Your task to perform on an android device: delete the emails in spam in the gmail app Image 0: 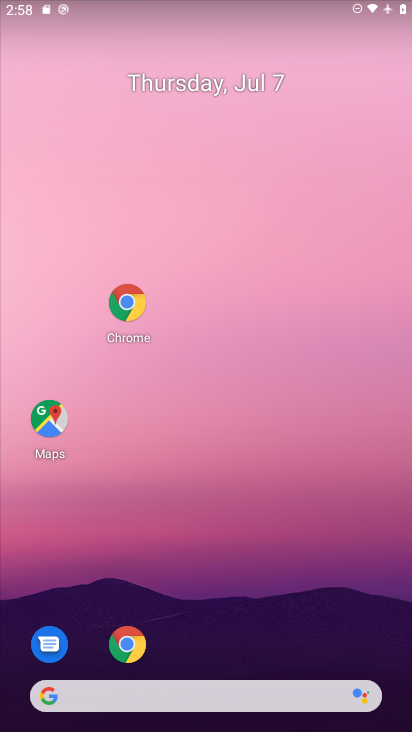
Step 0: click (326, 8)
Your task to perform on an android device: delete the emails in spam in the gmail app Image 1: 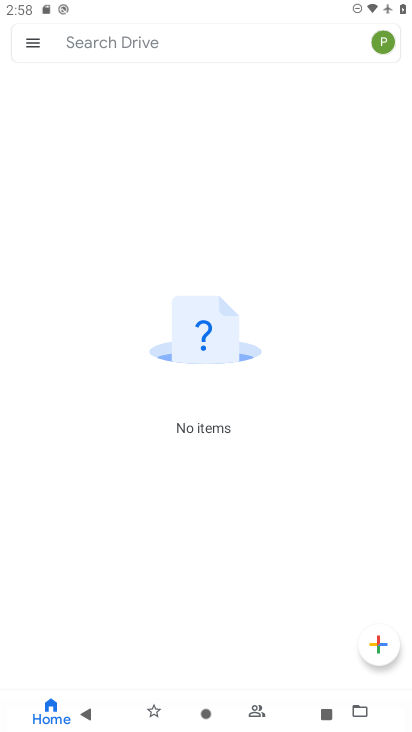
Step 1: click (298, 346)
Your task to perform on an android device: delete the emails in spam in the gmail app Image 2: 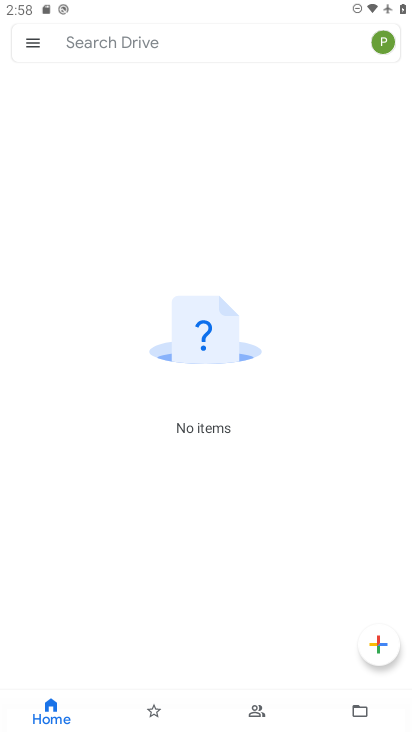
Step 2: press home button
Your task to perform on an android device: delete the emails in spam in the gmail app Image 3: 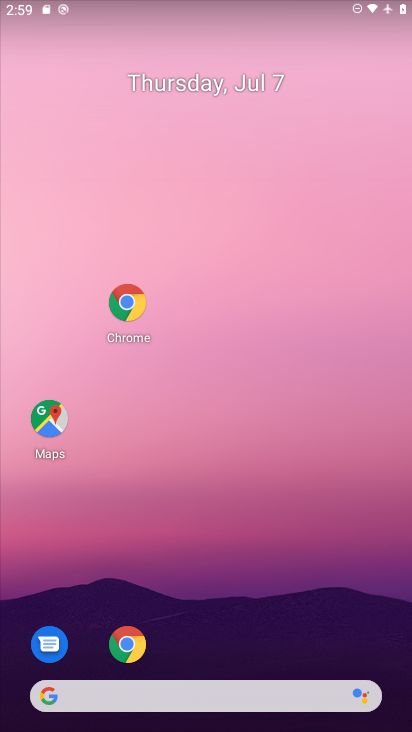
Step 3: drag from (300, 581) to (294, 111)
Your task to perform on an android device: delete the emails in spam in the gmail app Image 4: 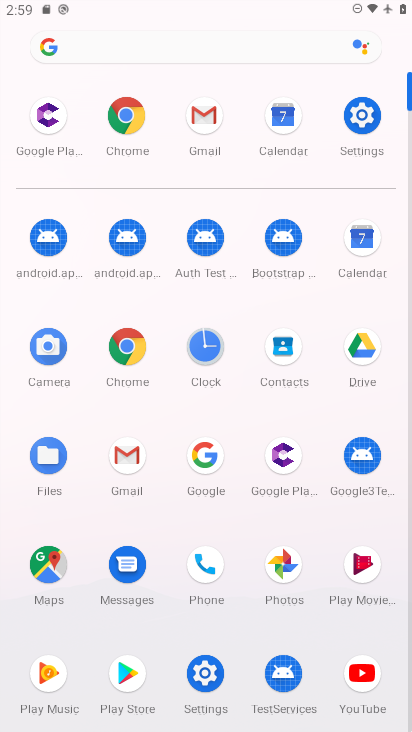
Step 4: click (115, 450)
Your task to perform on an android device: delete the emails in spam in the gmail app Image 5: 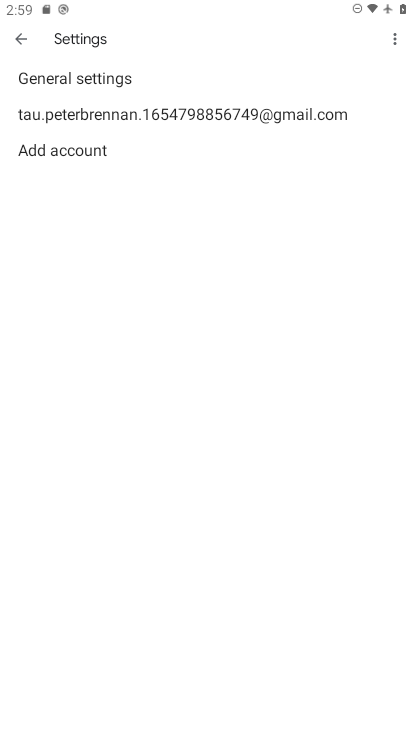
Step 5: press back button
Your task to perform on an android device: delete the emails in spam in the gmail app Image 6: 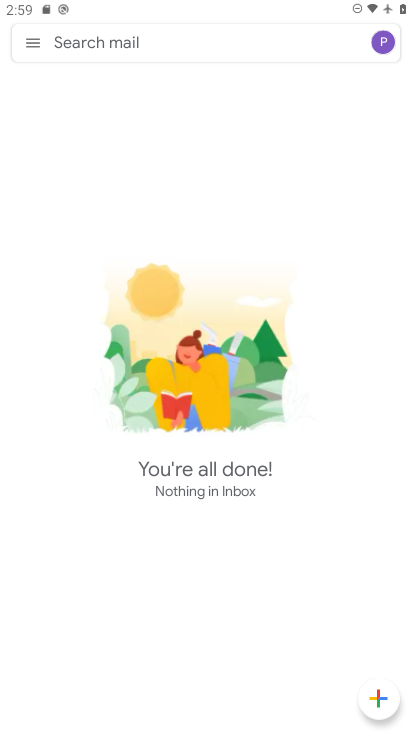
Step 6: click (24, 41)
Your task to perform on an android device: delete the emails in spam in the gmail app Image 7: 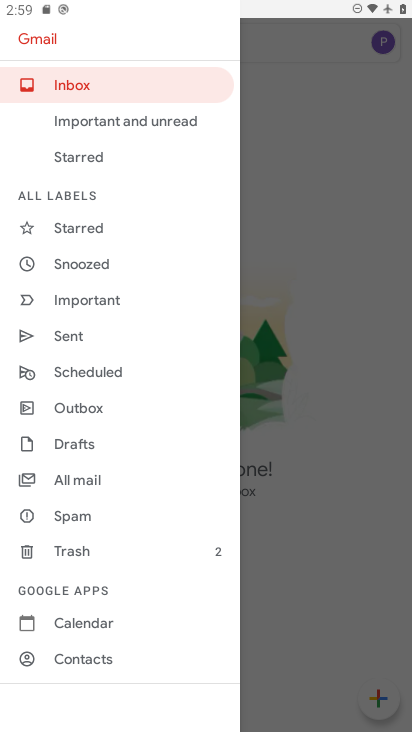
Step 7: click (89, 512)
Your task to perform on an android device: delete the emails in spam in the gmail app Image 8: 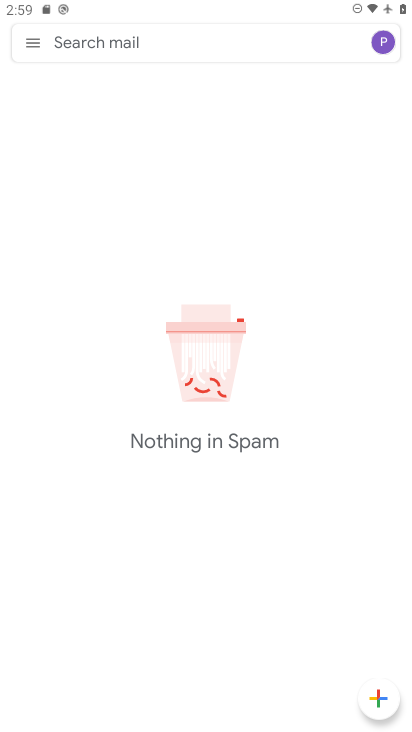
Step 8: task complete